Your task to perform on an android device: Open Android settings Image 0: 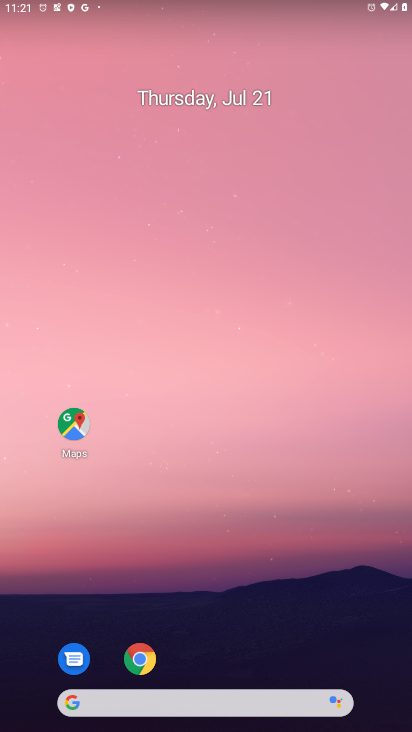
Step 0: drag from (244, 699) to (198, 129)
Your task to perform on an android device: Open Android settings Image 1: 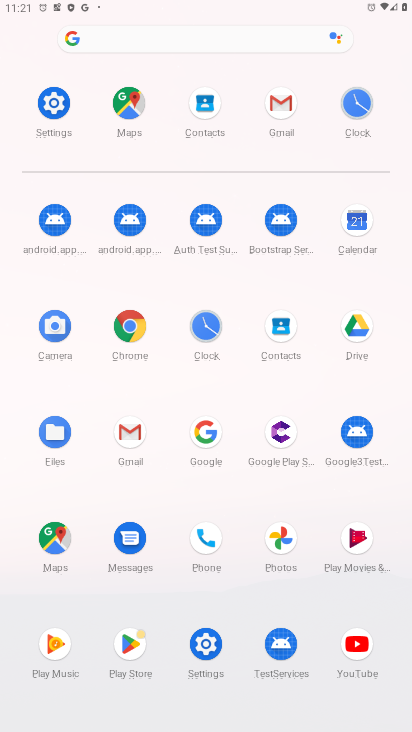
Step 1: click (58, 101)
Your task to perform on an android device: Open Android settings Image 2: 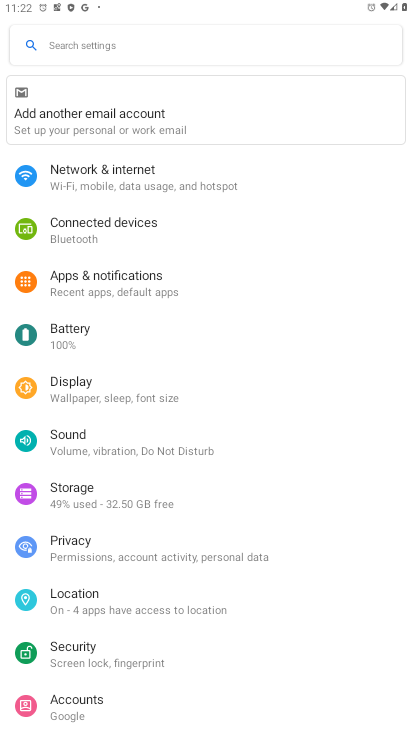
Step 2: task complete